Your task to perform on an android device: toggle notifications settings in the gmail app Image 0: 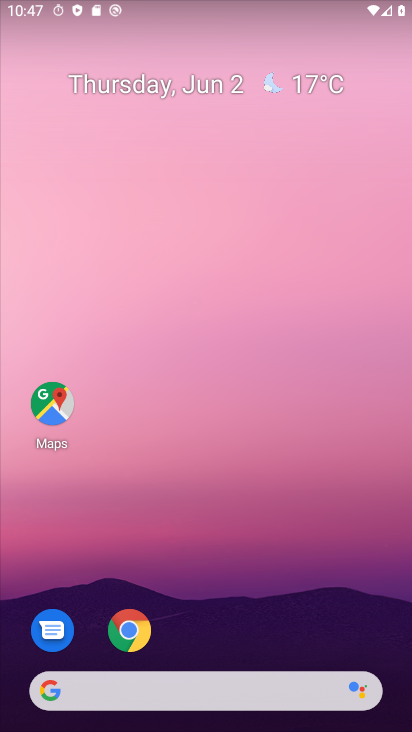
Step 0: drag from (207, 555) to (277, 10)
Your task to perform on an android device: toggle notifications settings in the gmail app Image 1: 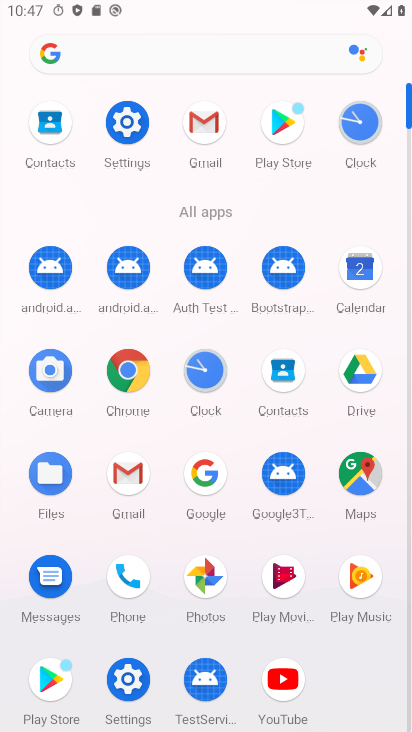
Step 1: click (128, 487)
Your task to perform on an android device: toggle notifications settings in the gmail app Image 2: 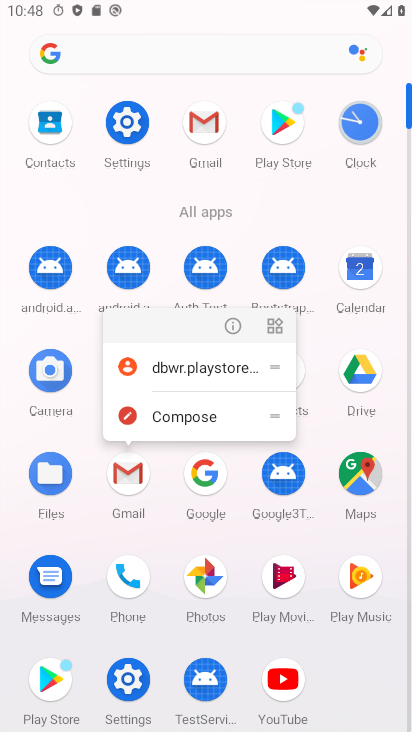
Step 2: click (126, 463)
Your task to perform on an android device: toggle notifications settings in the gmail app Image 3: 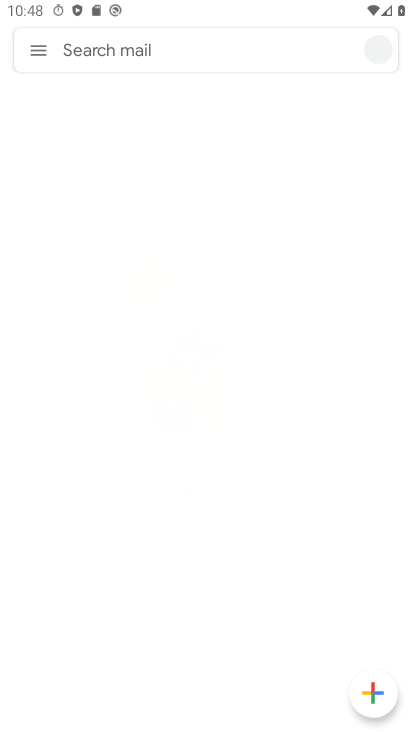
Step 3: click (41, 48)
Your task to perform on an android device: toggle notifications settings in the gmail app Image 4: 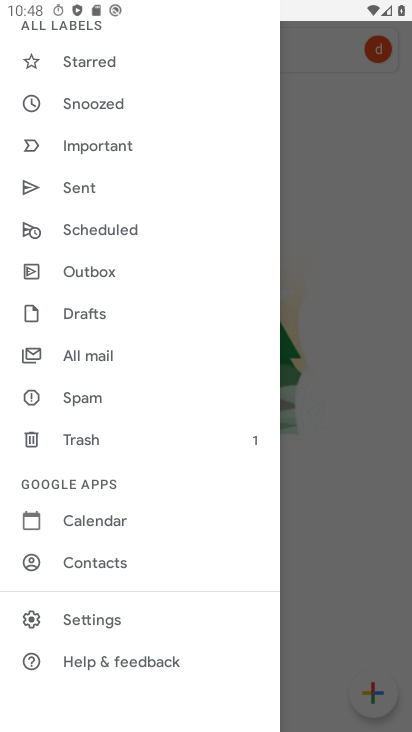
Step 4: click (86, 619)
Your task to perform on an android device: toggle notifications settings in the gmail app Image 5: 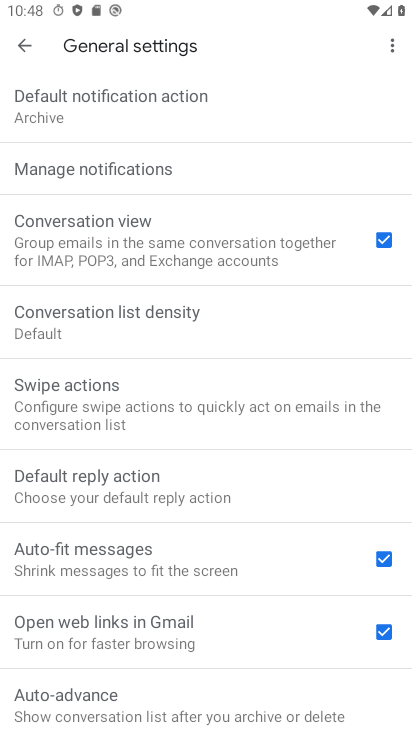
Step 5: click (100, 172)
Your task to perform on an android device: toggle notifications settings in the gmail app Image 6: 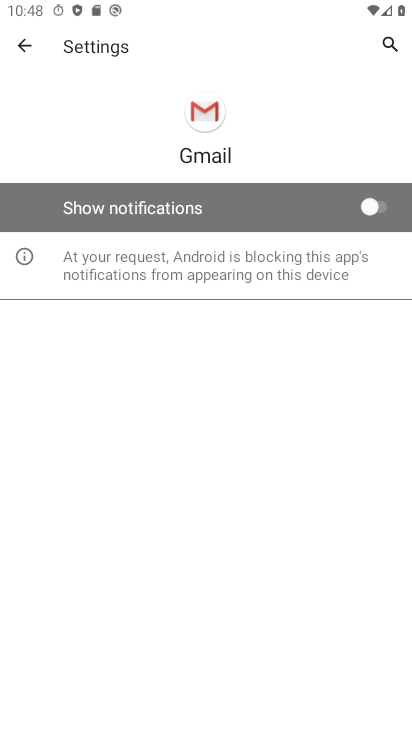
Step 6: click (389, 196)
Your task to perform on an android device: toggle notifications settings in the gmail app Image 7: 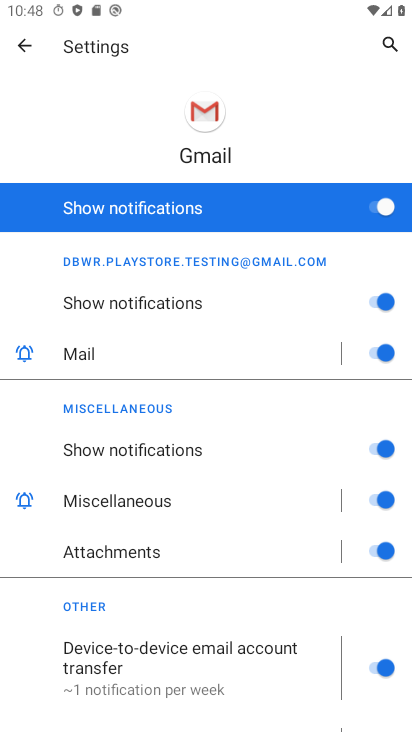
Step 7: task complete